Your task to perform on an android device: check the backup settings in the google photos Image 0: 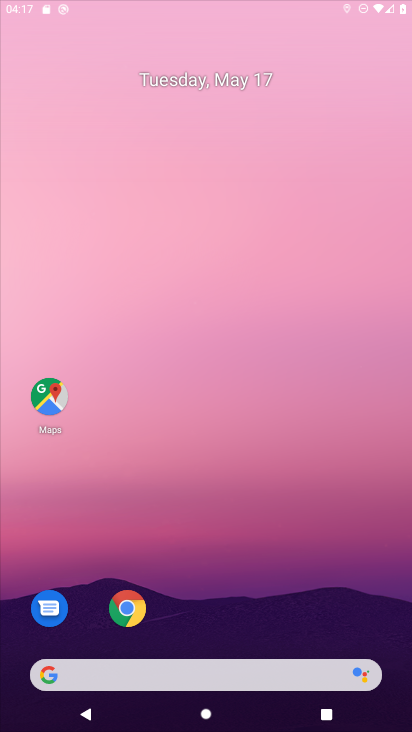
Step 0: drag from (216, 660) to (230, 310)
Your task to perform on an android device: check the backup settings in the google photos Image 1: 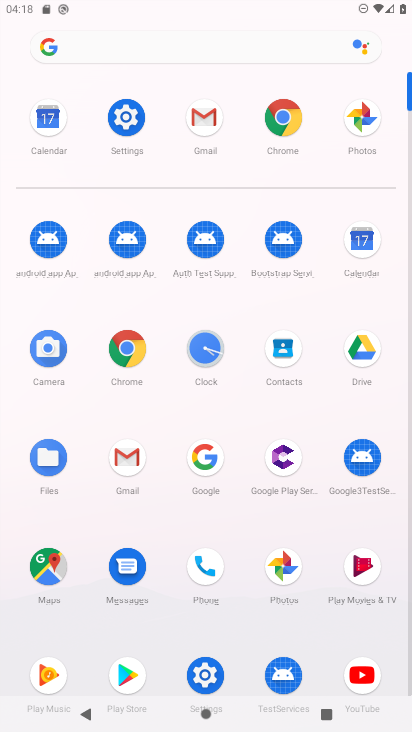
Step 1: click (283, 573)
Your task to perform on an android device: check the backup settings in the google photos Image 2: 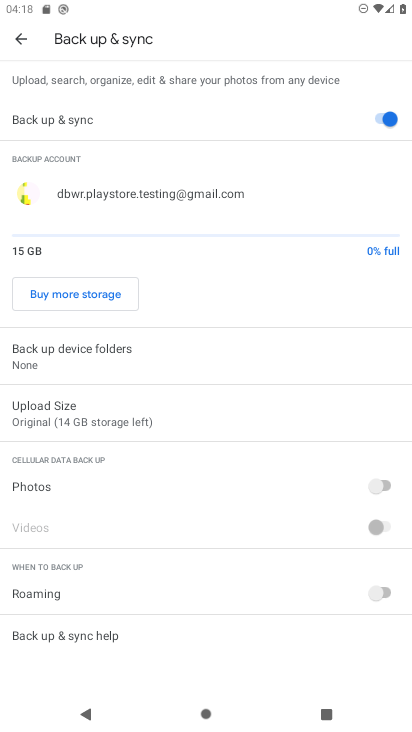
Step 2: task complete